Your task to perform on an android device: Open eBay Image 0: 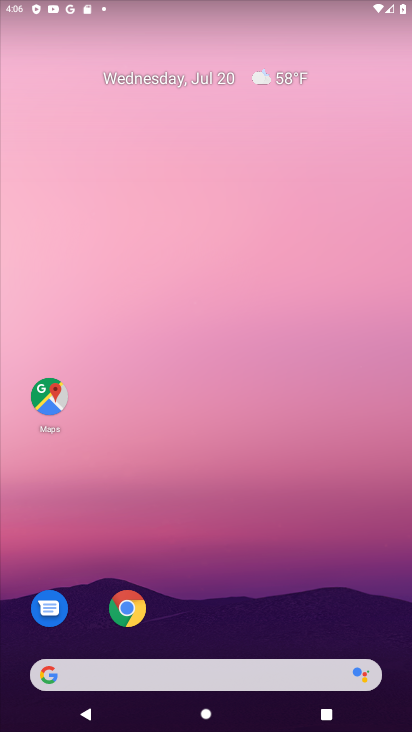
Step 0: click (134, 609)
Your task to perform on an android device: Open eBay Image 1: 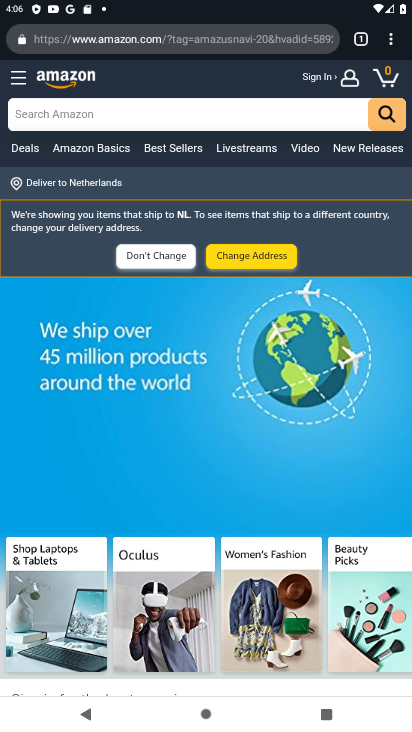
Step 1: click (177, 37)
Your task to perform on an android device: Open eBay Image 2: 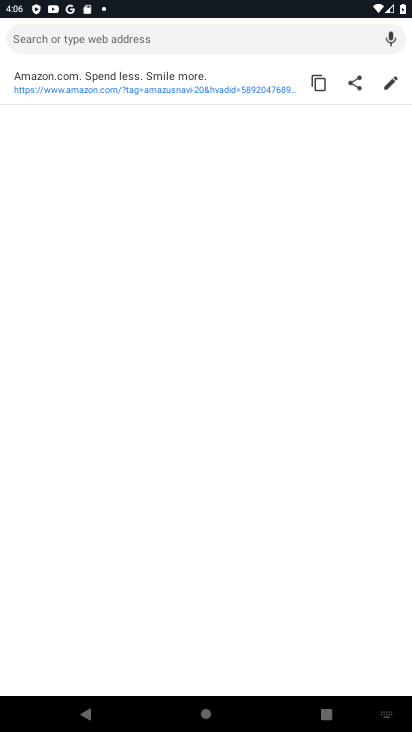
Step 2: type "eBay"
Your task to perform on an android device: Open eBay Image 3: 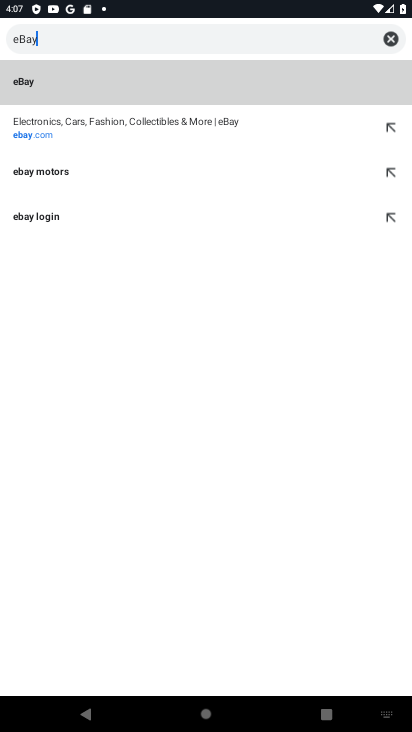
Step 3: click (66, 84)
Your task to perform on an android device: Open eBay Image 4: 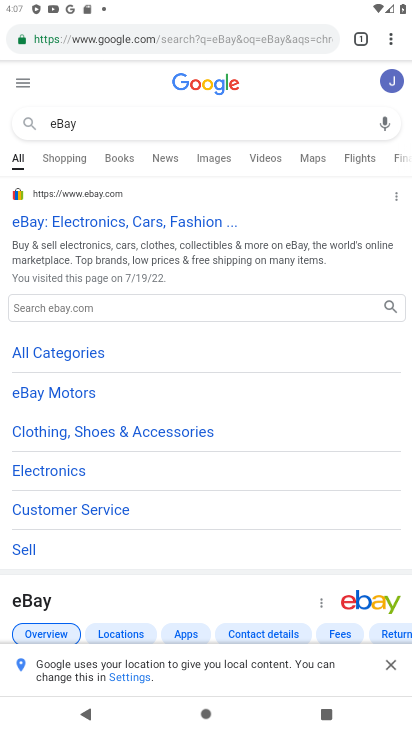
Step 4: task complete